Your task to perform on an android device: Open privacy settings Image 0: 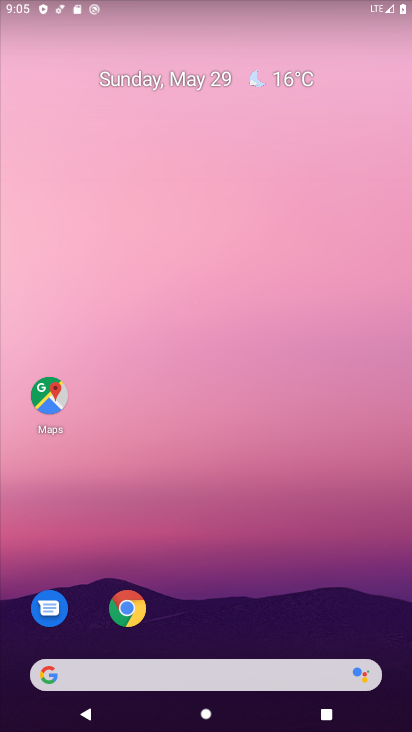
Step 0: drag from (199, 631) to (234, 5)
Your task to perform on an android device: Open privacy settings Image 1: 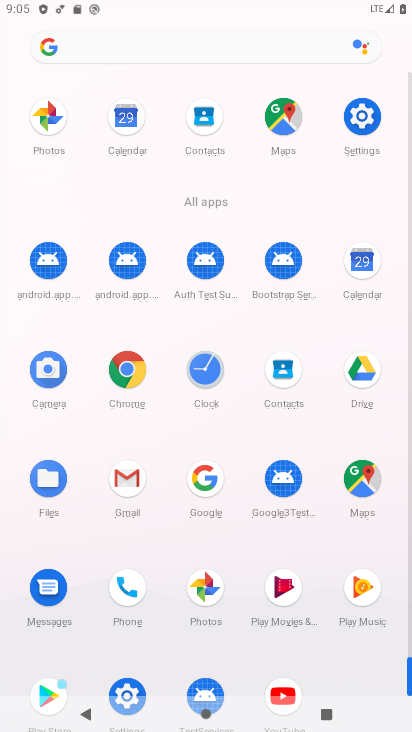
Step 1: click (355, 130)
Your task to perform on an android device: Open privacy settings Image 2: 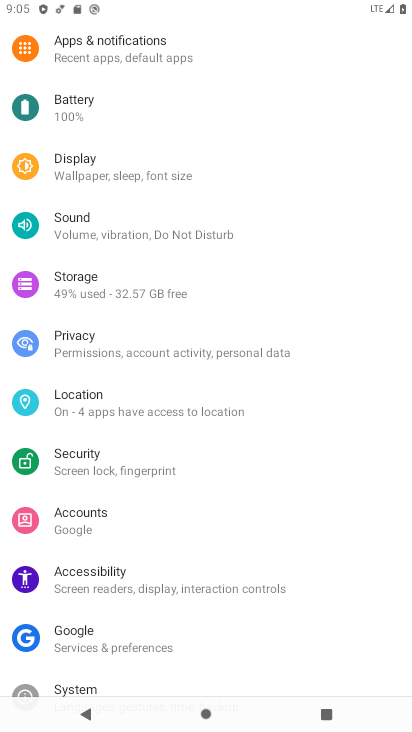
Step 2: click (87, 340)
Your task to perform on an android device: Open privacy settings Image 3: 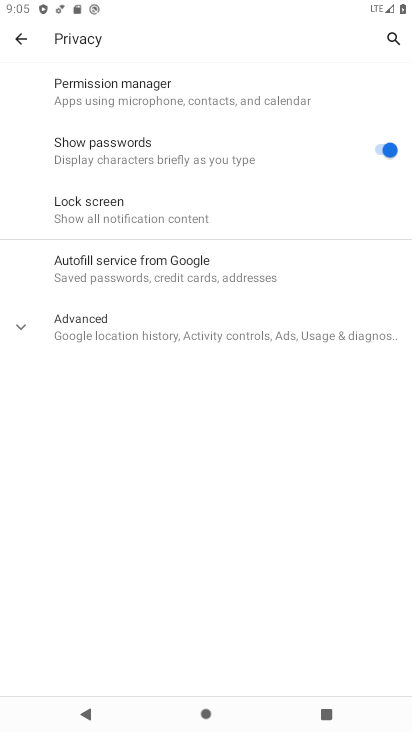
Step 3: task complete